Your task to perform on an android device: turn off priority inbox in the gmail app Image 0: 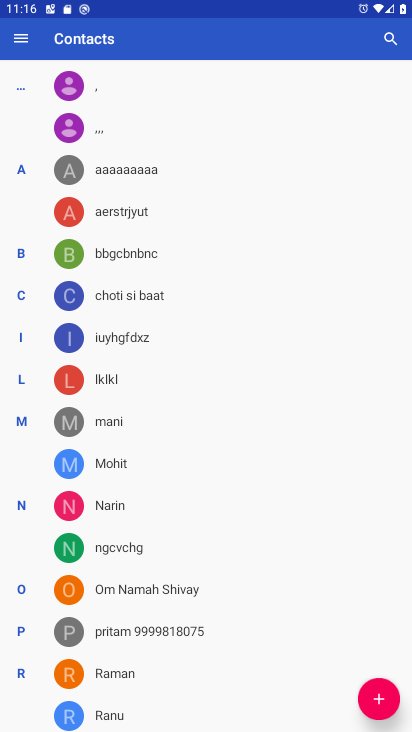
Step 0: press home button
Your task to perform on an android device: turn off priority inbox in the gmail app Image 1: 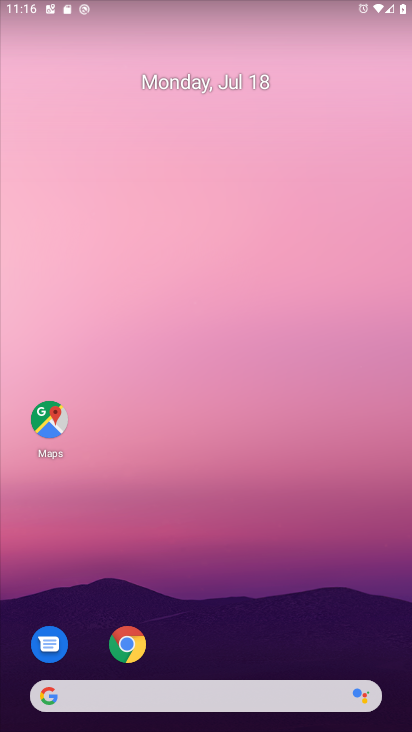
Step 1: drag from (234, 630) to (270, 57)
Your task to perform on an android device: turn off priority inbox in the gmail app Image 2: 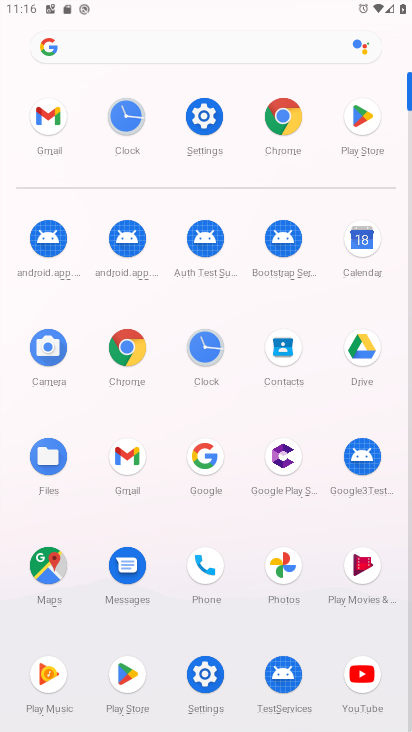
Step 2: click (49, 116)
Your task to perform on an android device: turn off priority inbox in the gmail app Image 3: 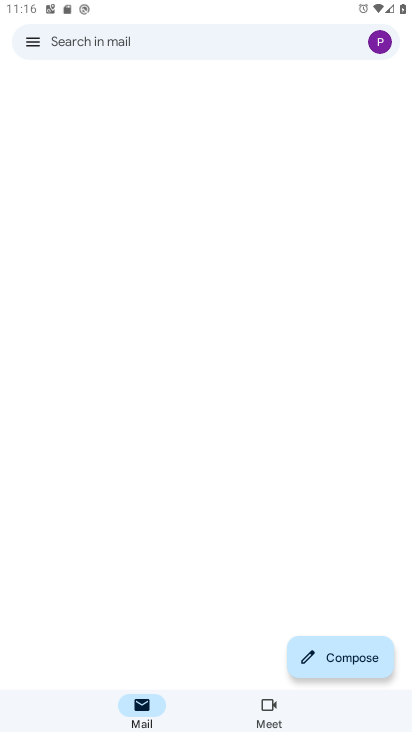
Step 3: task complete